Your task to perform on an android device: change timer sound Image 0: 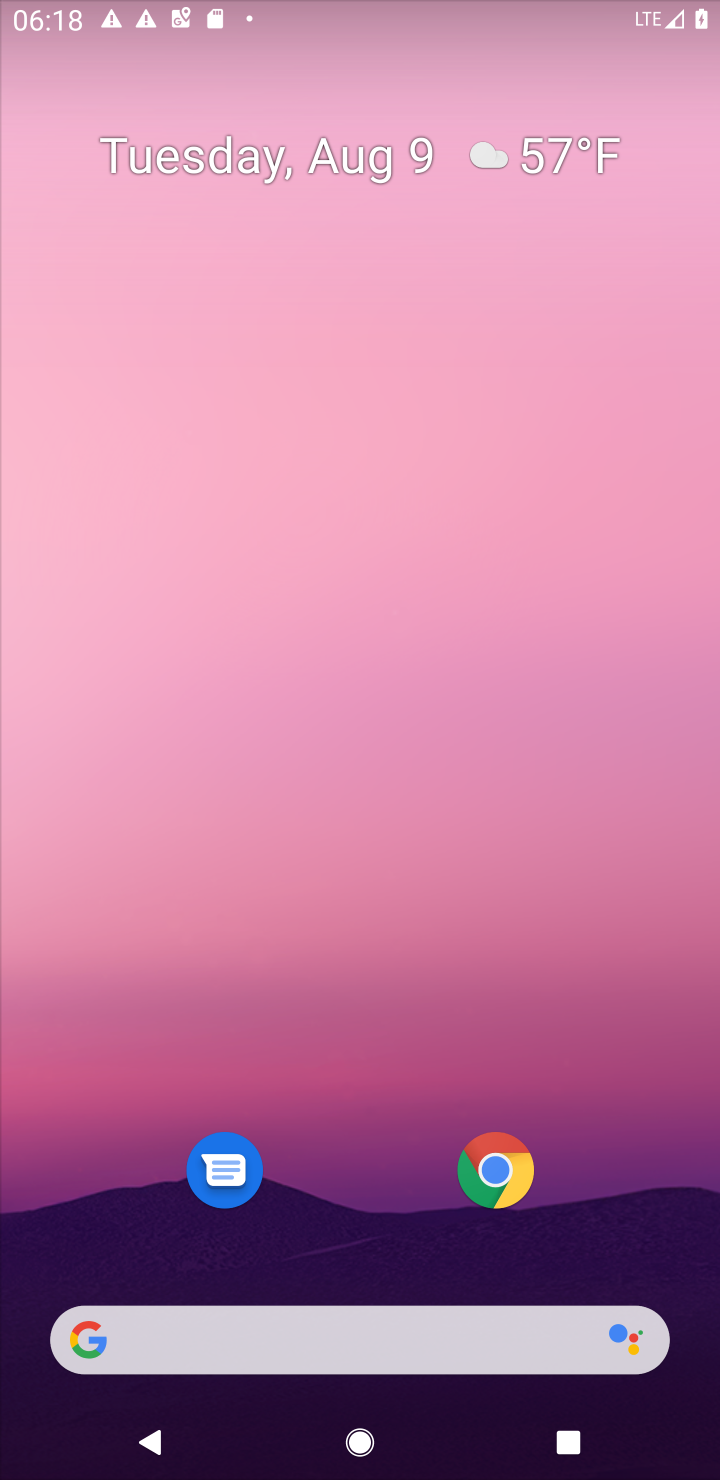
Step 0: press home button
Your task to perform on an android device: change timer sound Image 1: 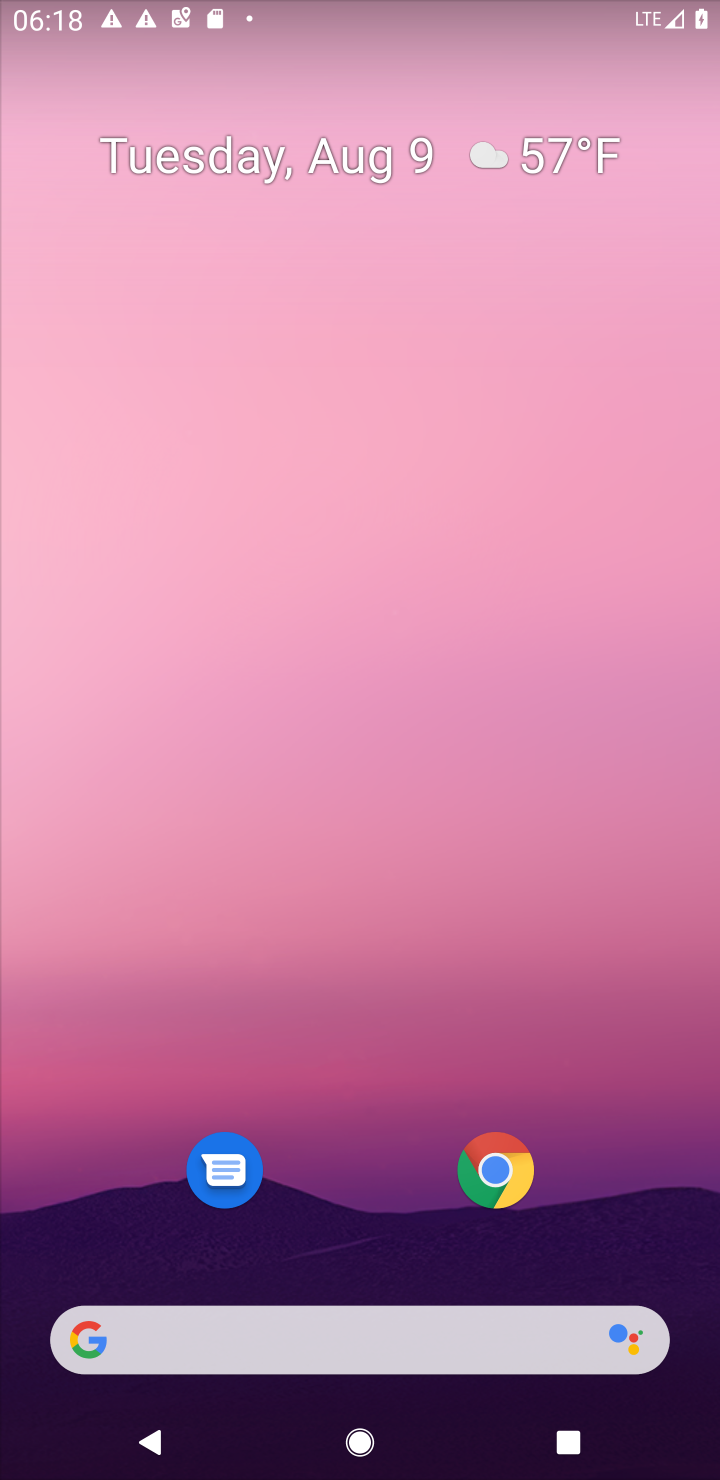
Step 1: drag from (340, 1277) to (372, 144)
Your task to perform on an android device: change timer sound Image 2: 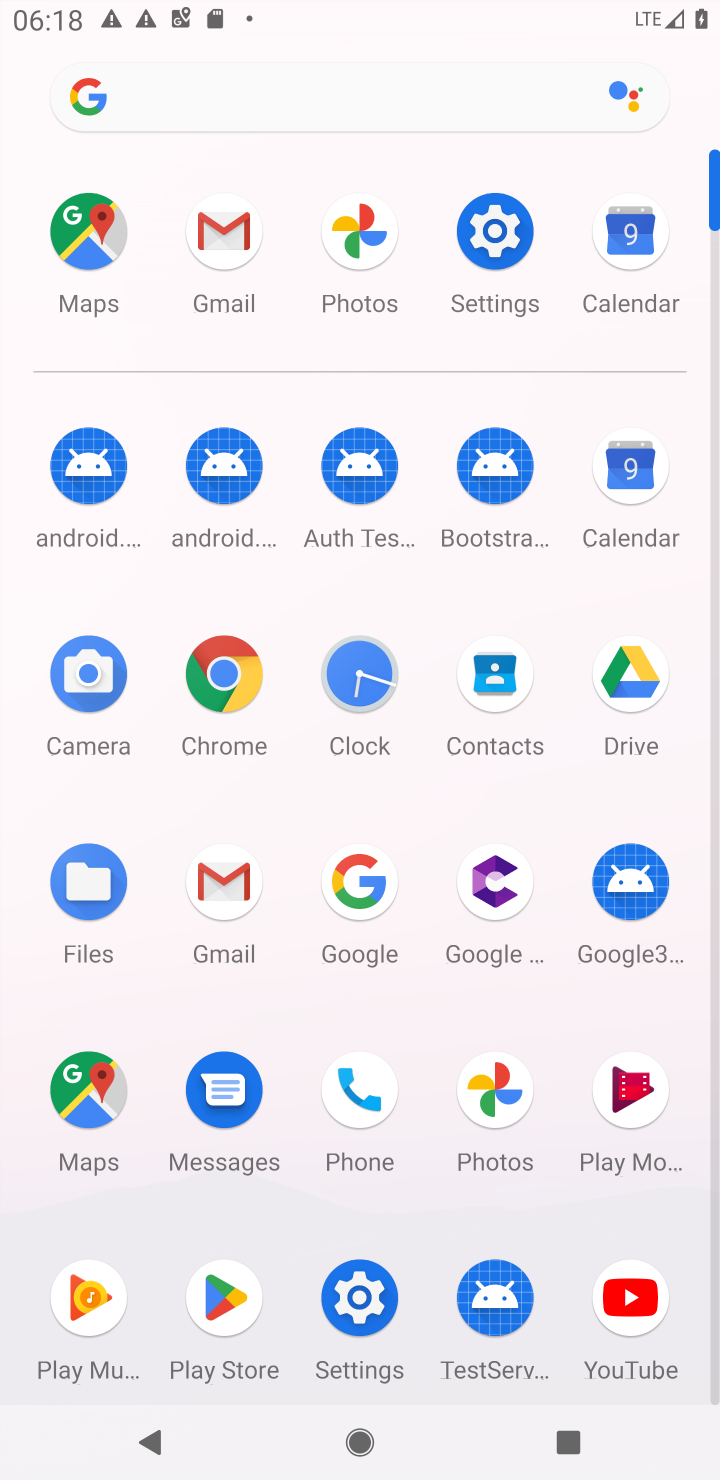
Step 2: click (354, 663)
Your task to perform on an android device: change timer sound Image 3: 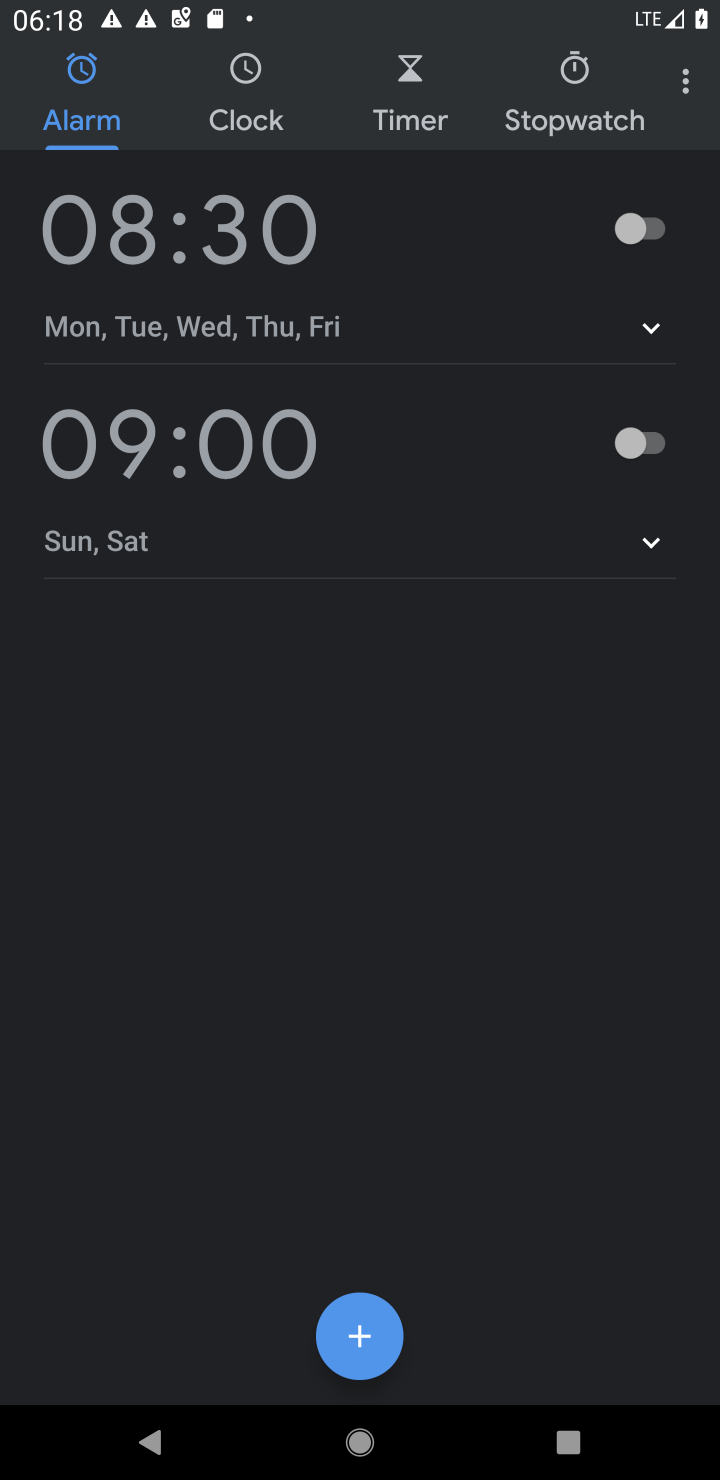
Step 3: click (687, 97)
Your task to perform on an android device: change timer sound Image 4: 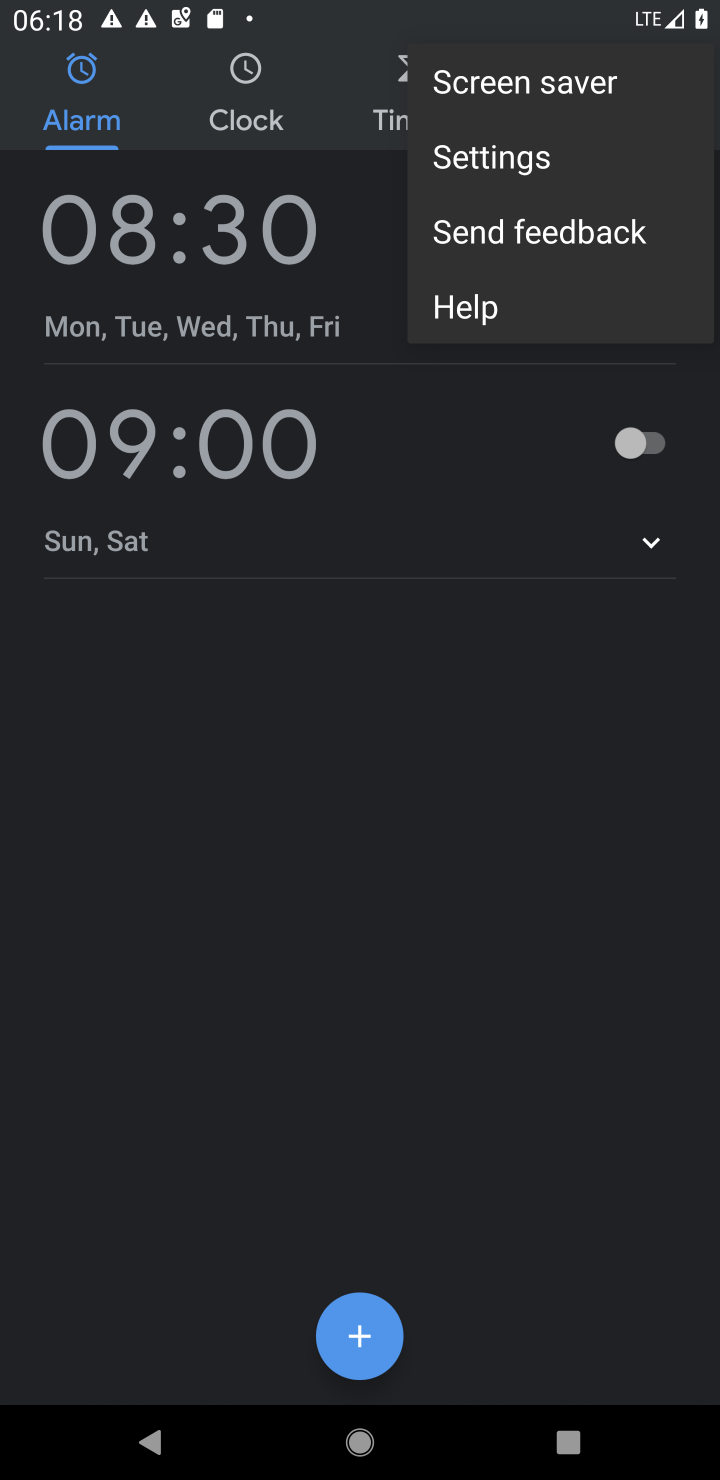
Step 4: click (490, 160)
Your task to perform on an android device: change timer sound Image 5: 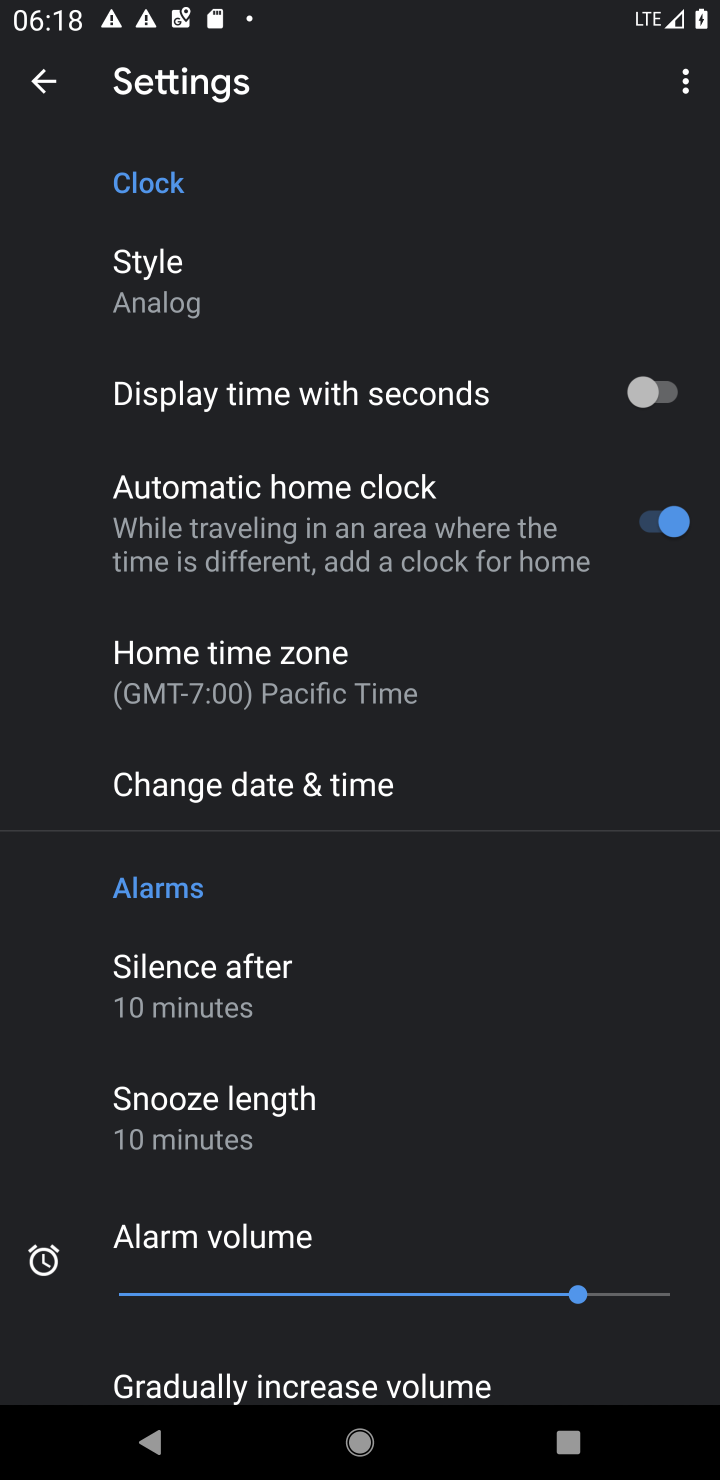
Step 5: drag from (571, 1361) to (543, 402)
Your task to perform on an android device: change timer sound Image 6: 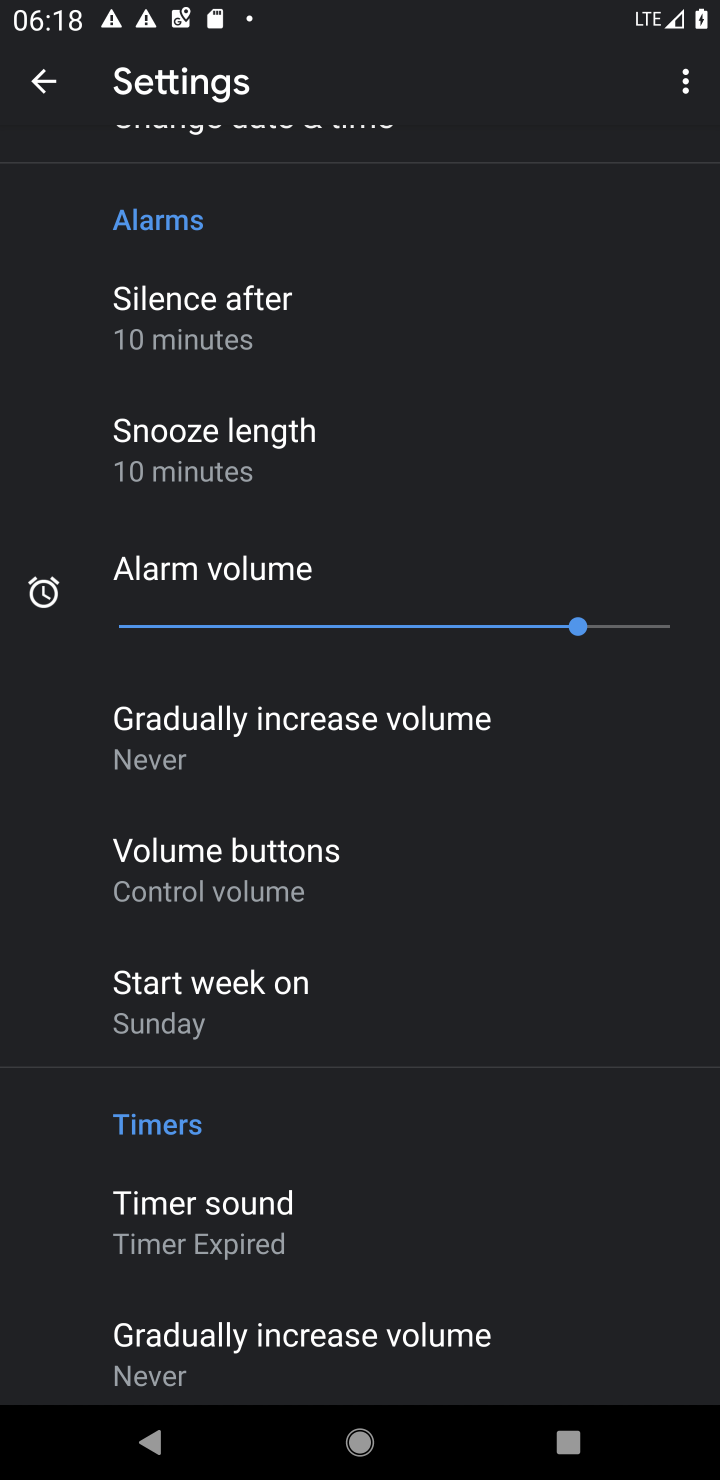
Step 6: click (192, 1219)
Your task to perform on an android device: change timer sound Image 7: 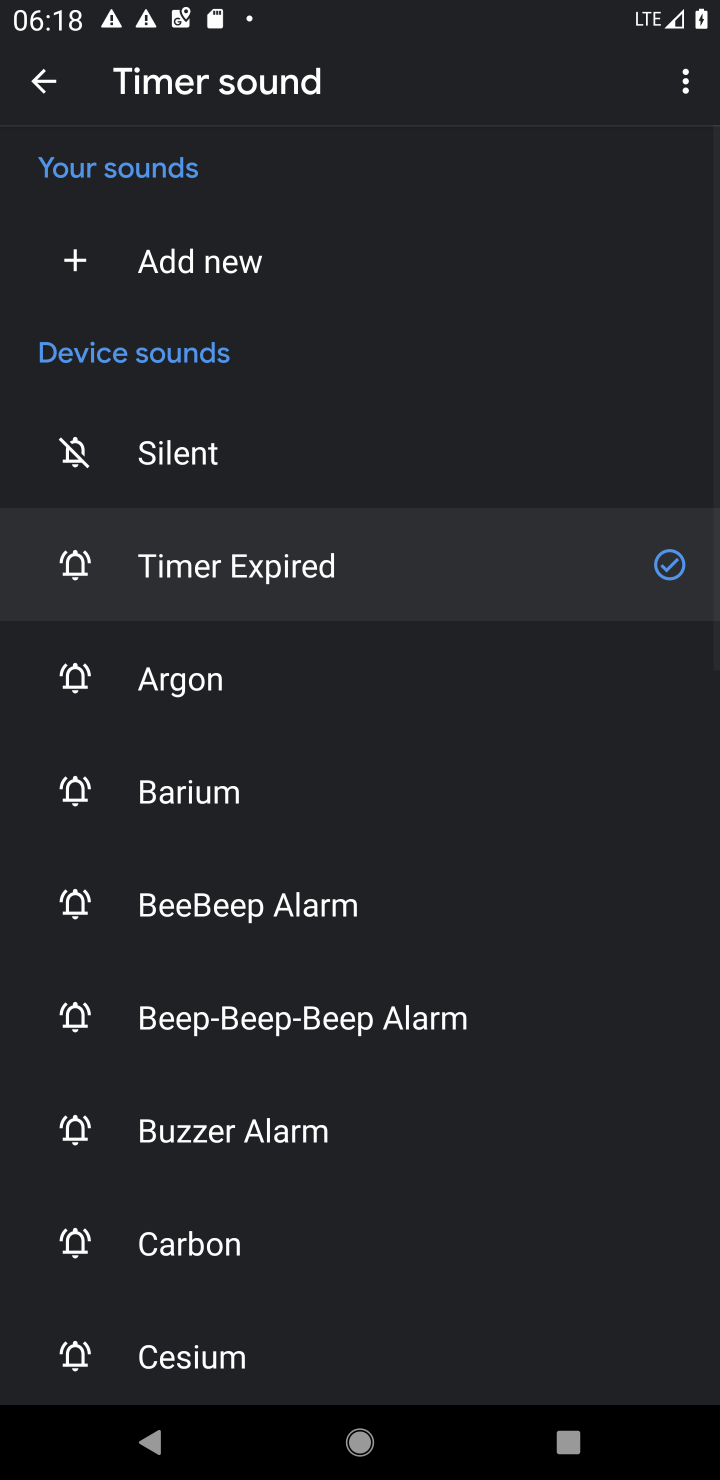
Step 7: click (162, 692)
Your task to perform on an android device: change timer sound Image 8: 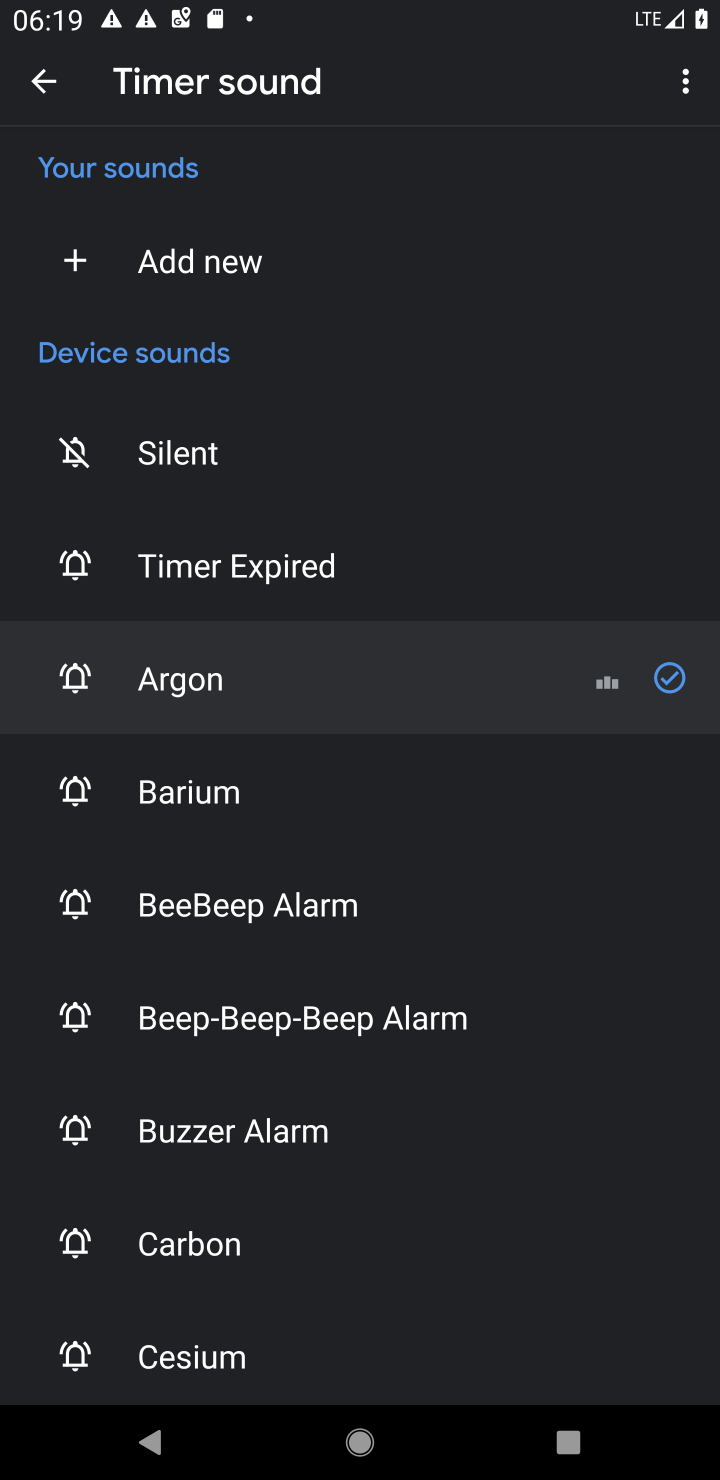
Step 8: task complete